Your task to perform on an android device: make emails show in primary in the gmail app Image 0: 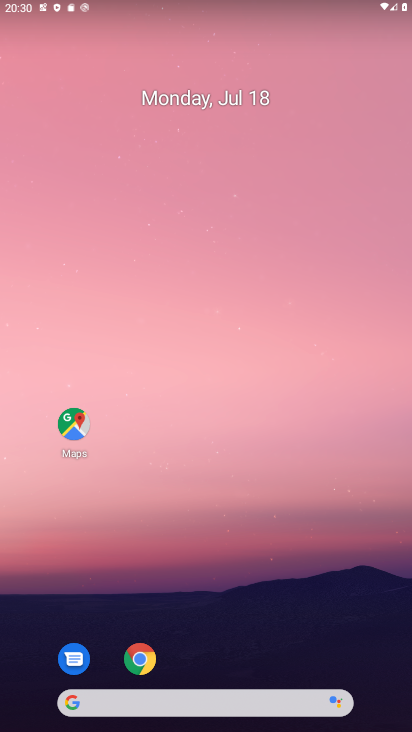
Step 0: click (148, 57)
Your task to perform on an android device: make emails show in primary in the gmail app Image 1: 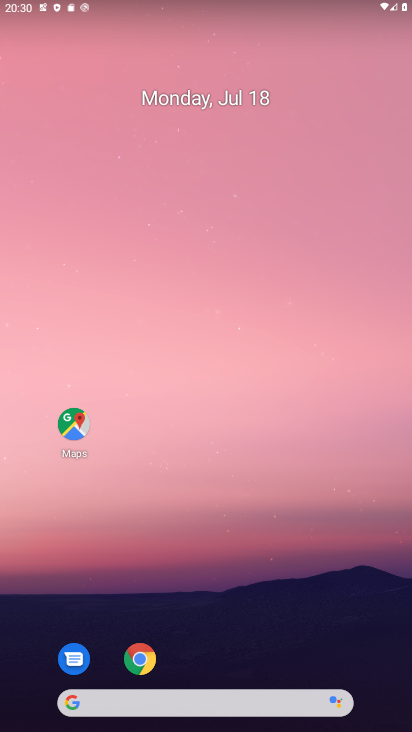
Step 1: drag from (189, 620) to (20, 93)
Your task to perform on an android device: make emails show in primary in the gmail app Image 2: 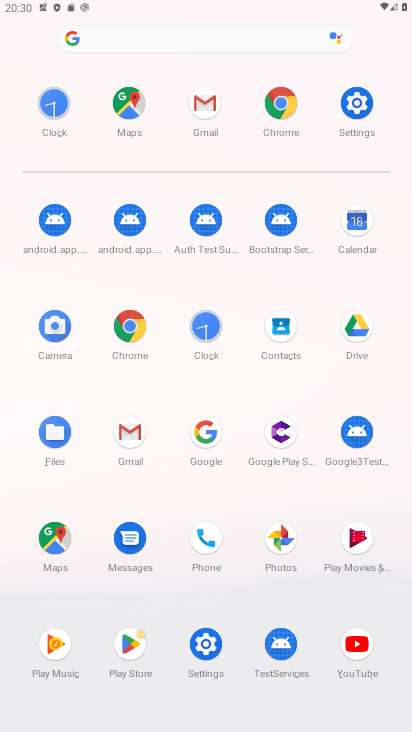
Step 2: click (125, 426)
Your task to perform on an android device: make emails show in primary in the gmail app Image 3: 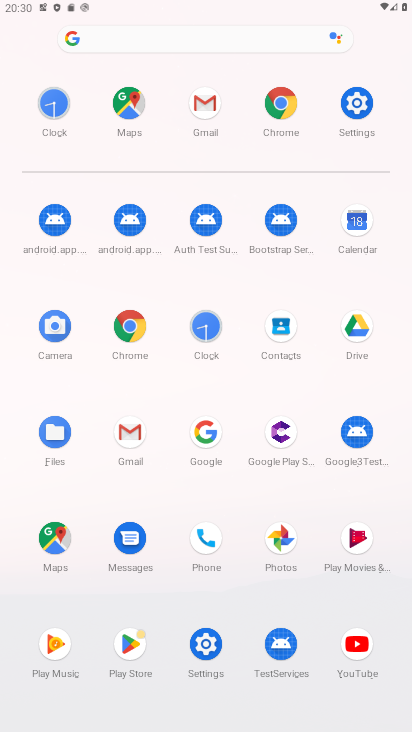
Step 3: click (125, 426)
Your task to perform on an android device: make emails show in primary in the gmail app Image 4: 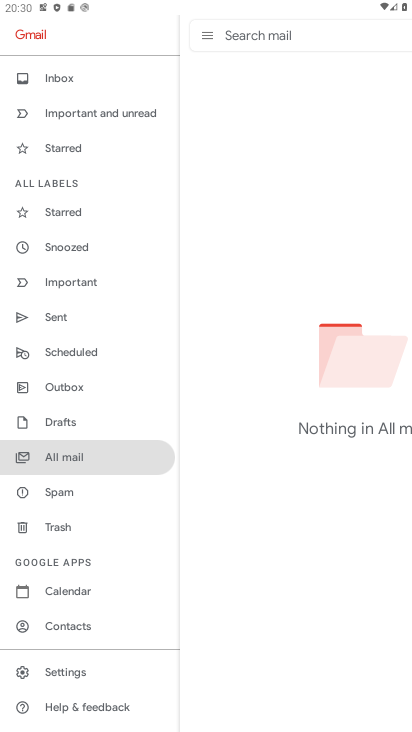
Step 4: click (126, 430)
Your task to perform on an android device: make emails show in primary in the gmail app Image 5: 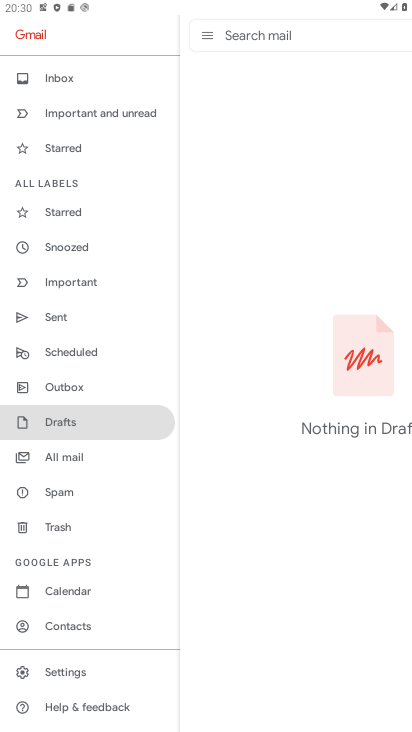
Step 5: click (68, 454)
Your task to perform on an android device: make emails show in primary in the gmail app Image 6: 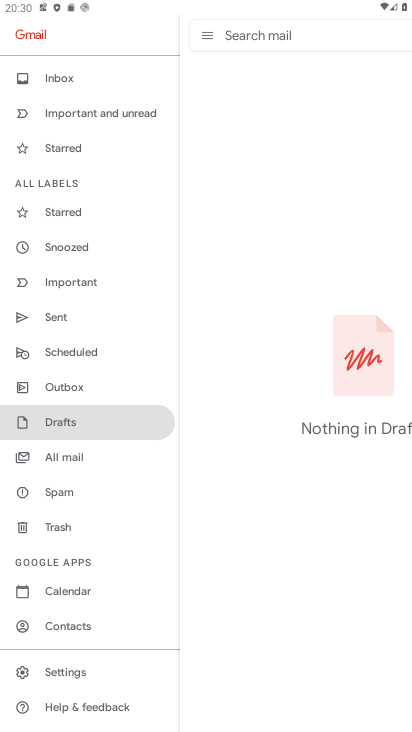
Step 6: click (68, 454)
Your task to perform on an android device: make emails show in primary in the gmail app Image 7: 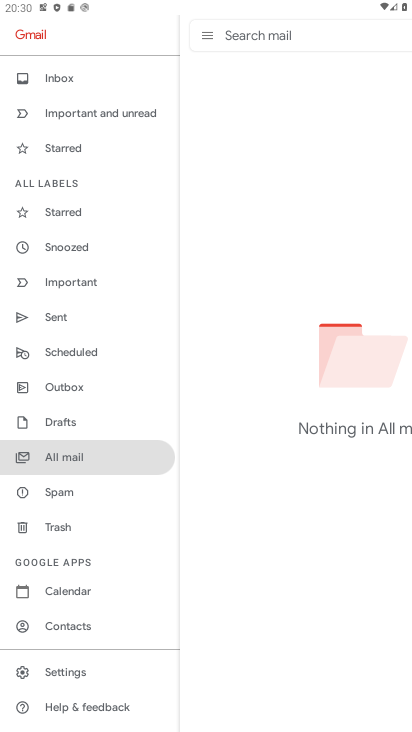
Step 7: click (65, 666)
Your task to perform on an android device: make emails show in primary in the gmail app Image 8: 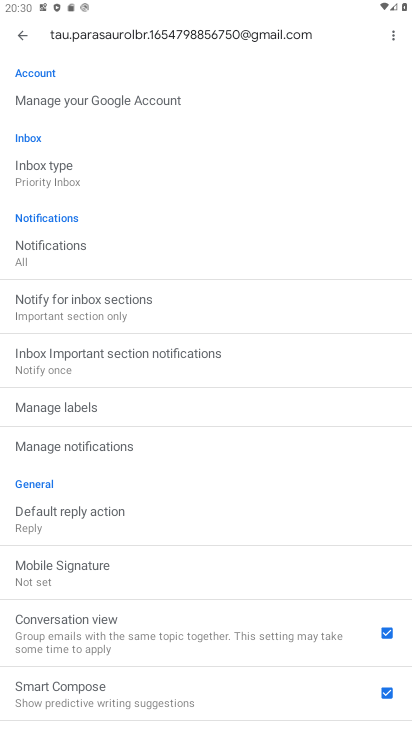
Step 8: click (34, 165)
Your task to perform on an android device: make emails show in primary in the gmail app Image 9: 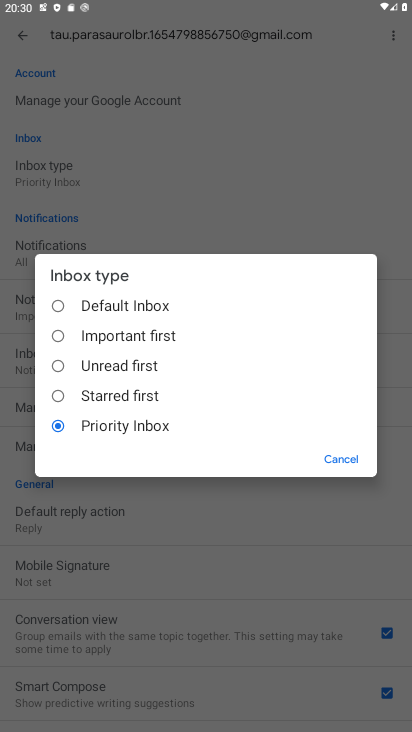
Step 9: click (62, 308)
Your task to perform on an android device: make emails show in primary in the gmail app Image 10: 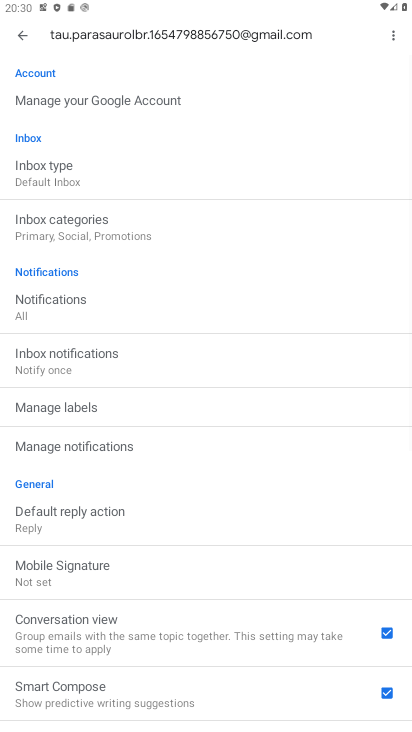
Step 10: task complete